Your task to perform on an android device: Open Google Chrome Image 0: 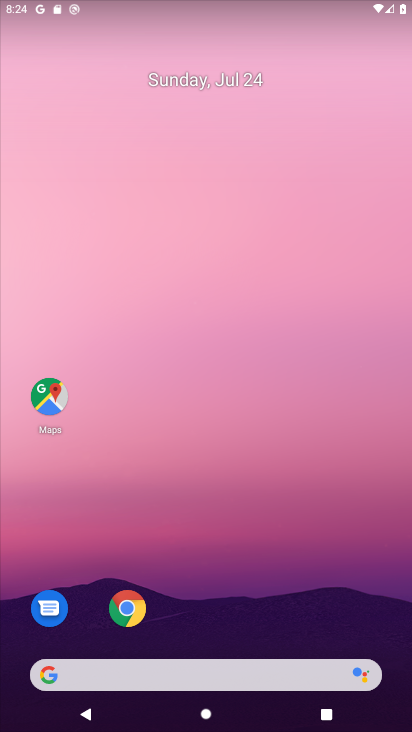
Step 0: click (128, 622)
Your task to perform on an android device: Open Google Chrome Image 1: 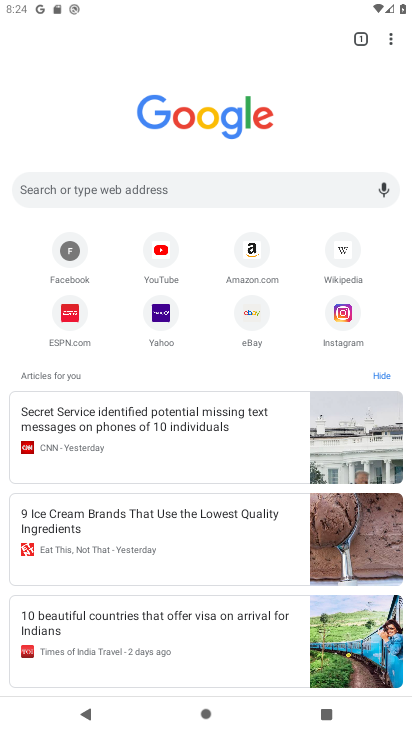
Step 1: task complete